Your task to perform on an android device: turn off data saver in the chrome app Image 0: 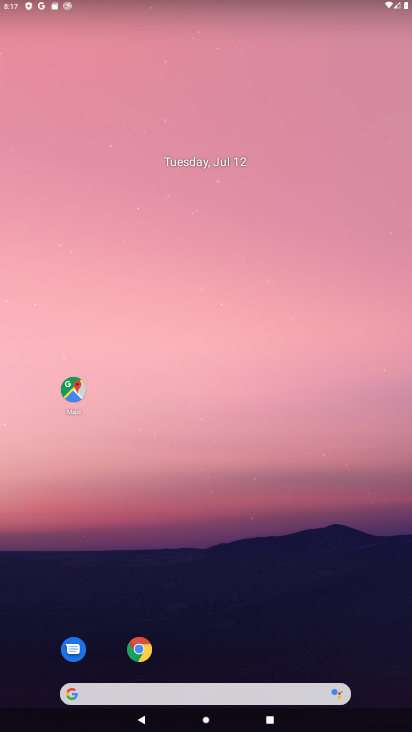
Step 0: click (145, 656)
Your task to perform on an android device: turn off data saver in the chrome app Image 1: 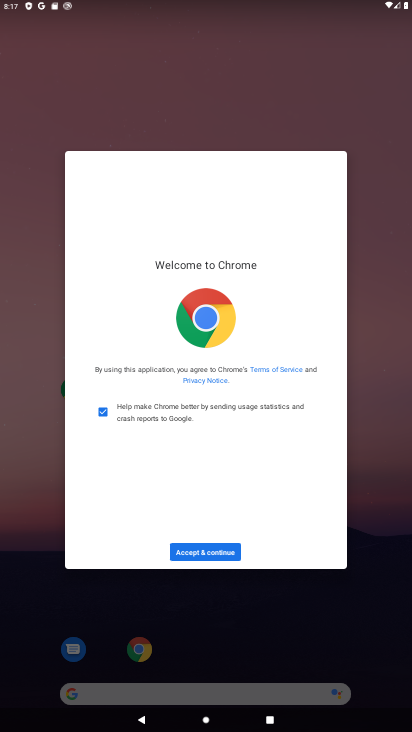
Step 1: click (205, 548)
Your task to perform on an android device: turn off data saver in the chrome app Image 2: 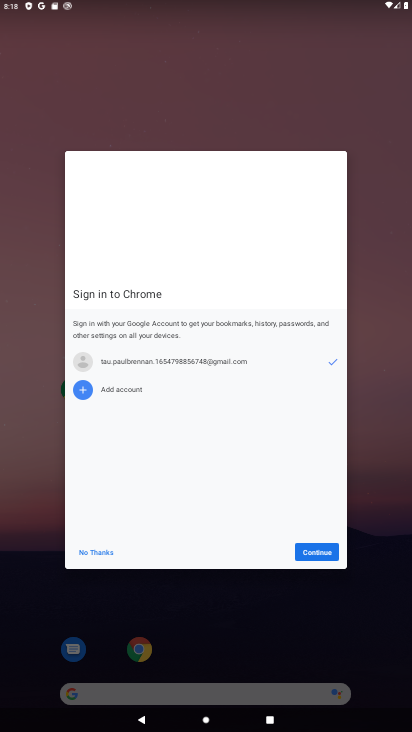
Step 2: click (314, 548)
Your task to perform on an android device: turn off data saver in the chrome app Image 3: 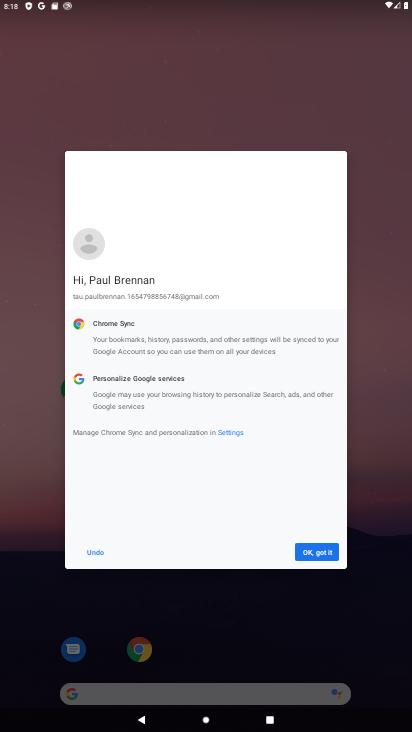
Step 3: click (314, 548)
Your task to perform on an android device: turn off data saver in the chrome app Image 4: 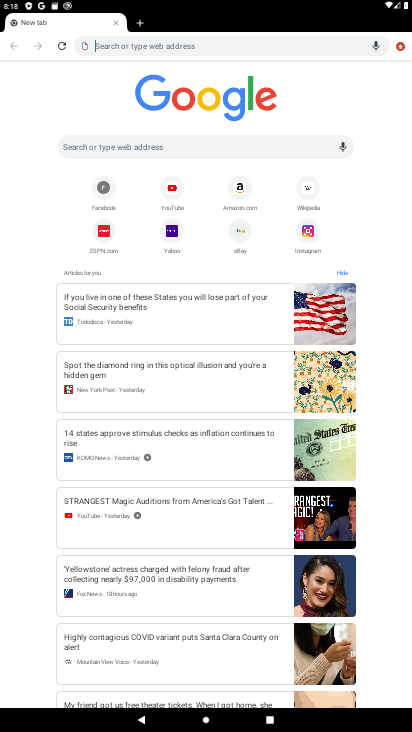
Step 4: click (398, 50)
Your task to perform on an android device: turn off data saver in the chrome app Image 5: 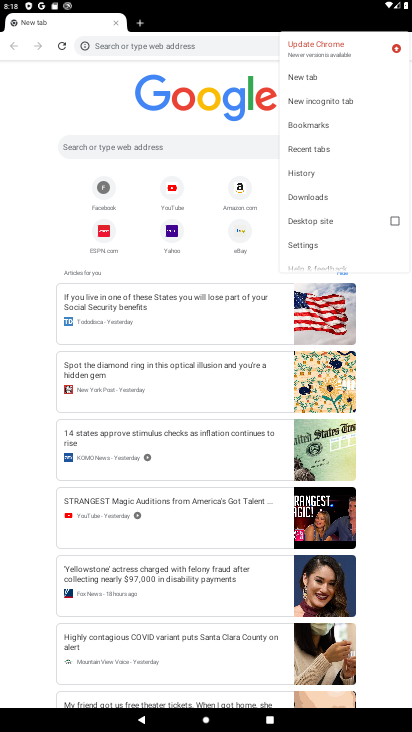
Step 5: click (318, 251)
Your task to perform on an android device: turn off data saver in the chrome app Image 6: 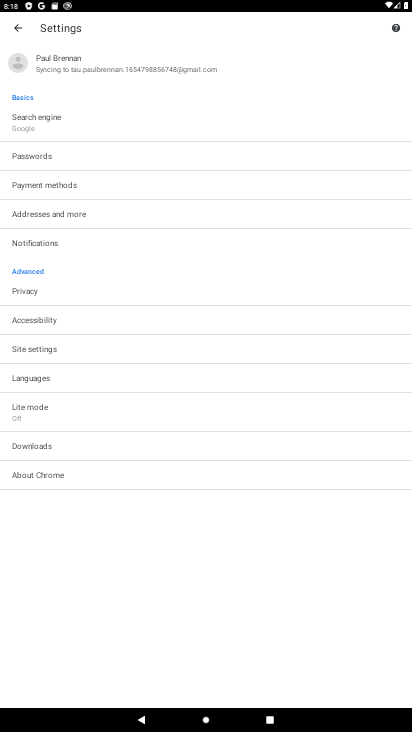
Step 6: click (162, 401)
Your task to perform on an android device: turn off data saver in the chrome app Image 7: 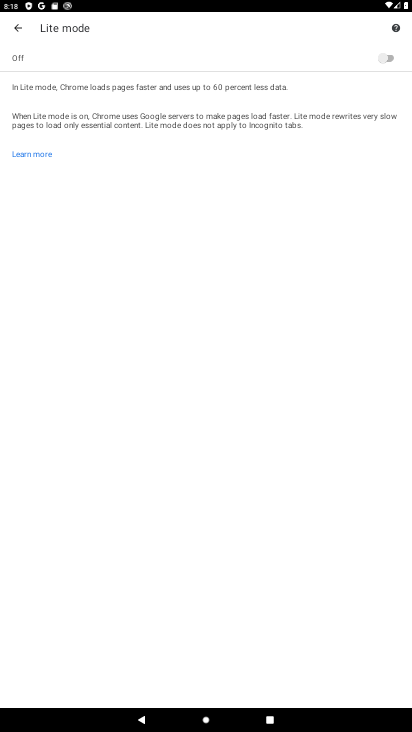
Step 7: click (386, 62)
Your task to perform on an android device: turn off data saver in the chrome app Image 8: 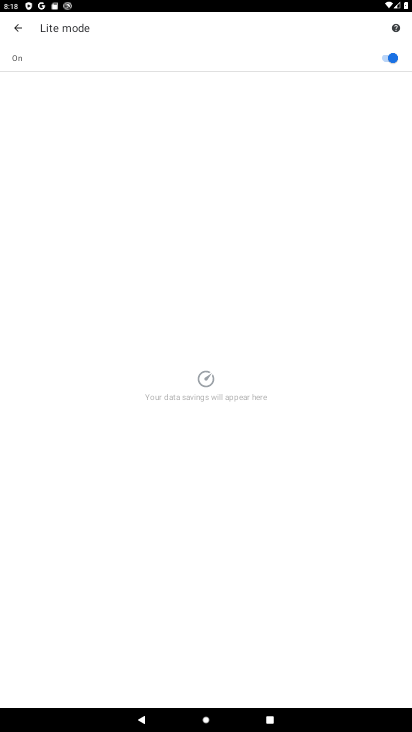
Step 8: task complete